Your task to perform on an android device: Do I have any events tomorrow? Image 0: 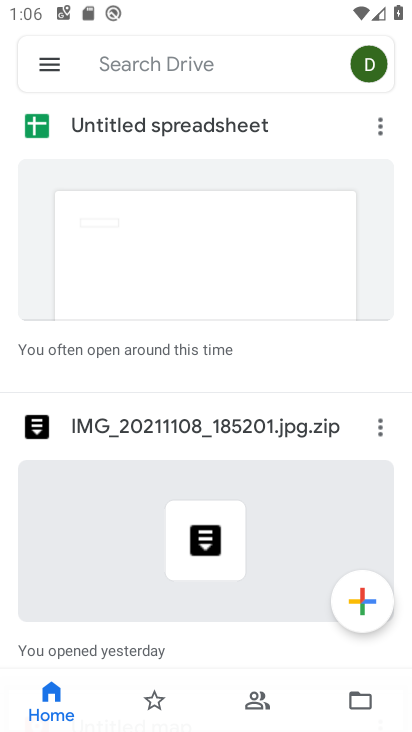
Step 0: press home button
Your task to perform on an android device: Do I have any events tomorrow? Image 1: 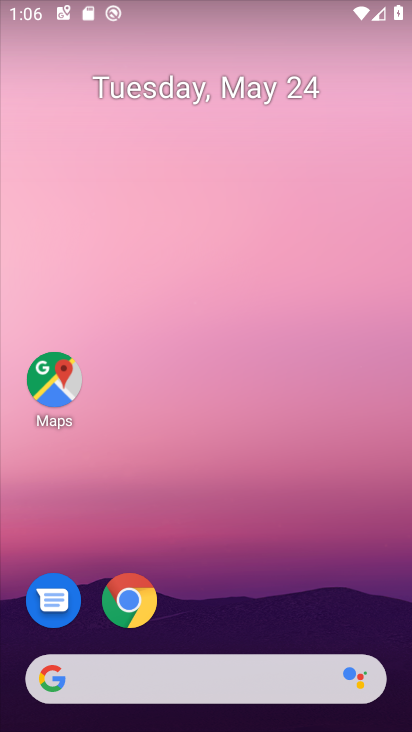
Step 1: drag from (191, 612) to (193, 241)
Your task to perform on an android device: Do I have any events tomorrow? Image 2: 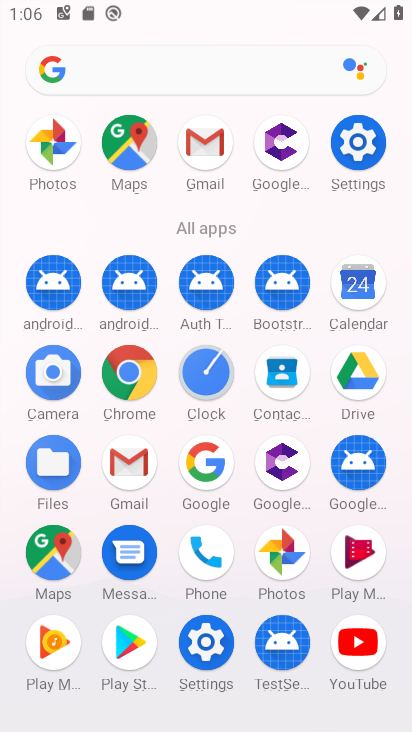
Step 2: click (354, 279)
Your task to perform on an android device: Do I have any events tomorrow? Image 3: 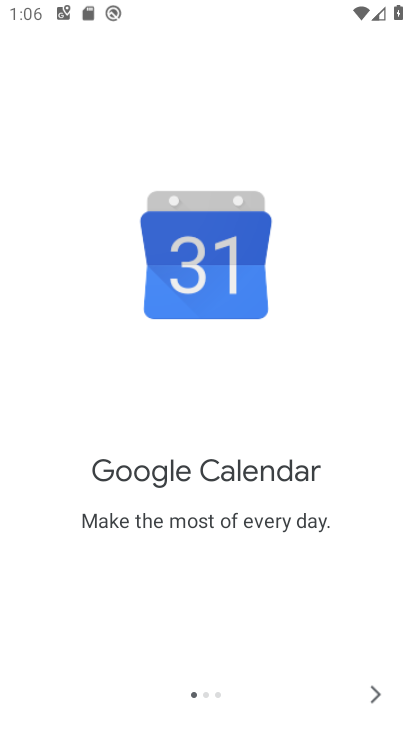
Step 3: click (372, 708)
Your task to perform on an android device: Do I have any events tomorrow? Image 4: 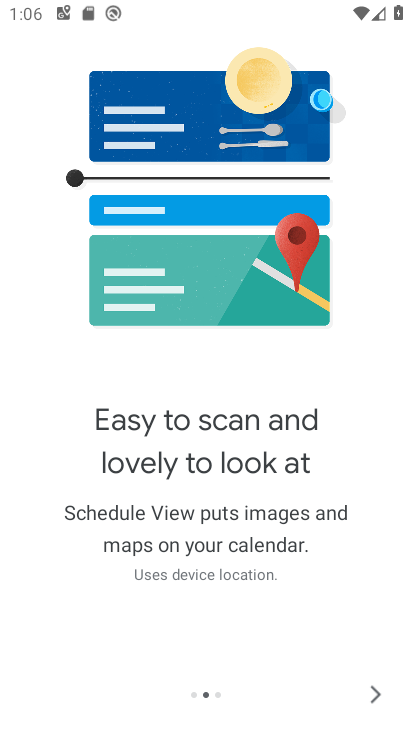
Step 4: click (372, 708)
Your task to perform on an android device: Do I have any events tomorrow? Image 5: 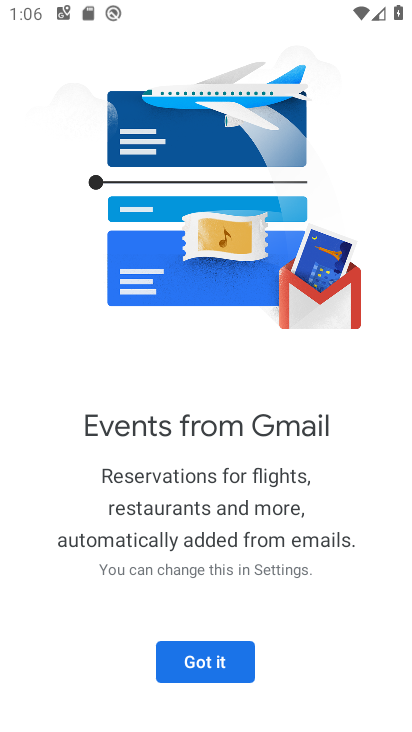
Step 5: click (200, 671)
Your task to perform on an android device: Do I have any events tomorrow? Image 6: 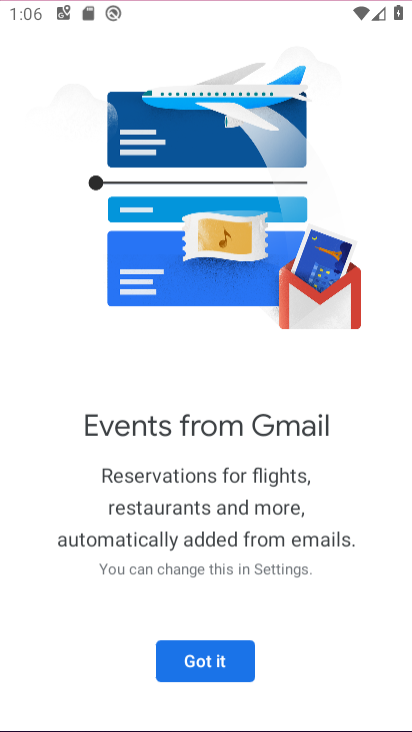
Step 6: click (200, 671)
Your task to perform on an android device: Do I have any events tomorrow? Image 7: 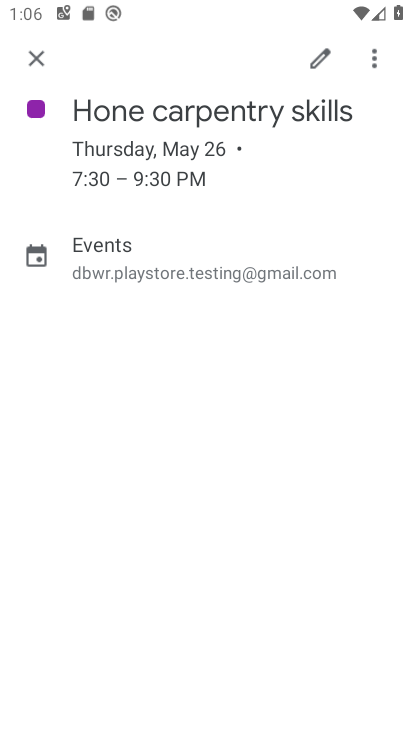
Step 7: click (40, 54)
Your task to perform on an android device: Do I have any events tomorrow? Image 8: 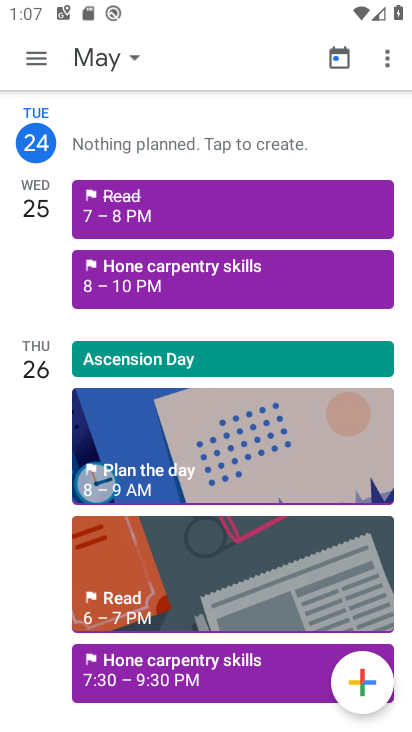
Step 8: click (124, 54)
Your task to perform on an android device: Do I have any events tomorrow? Image 9: 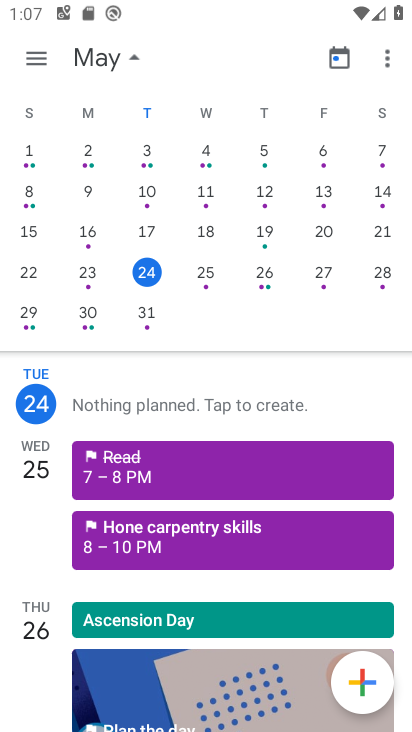
Step 9: click (216, 278)
Your task to perform on an android device: Do I have any events tomorrow? Image 10: 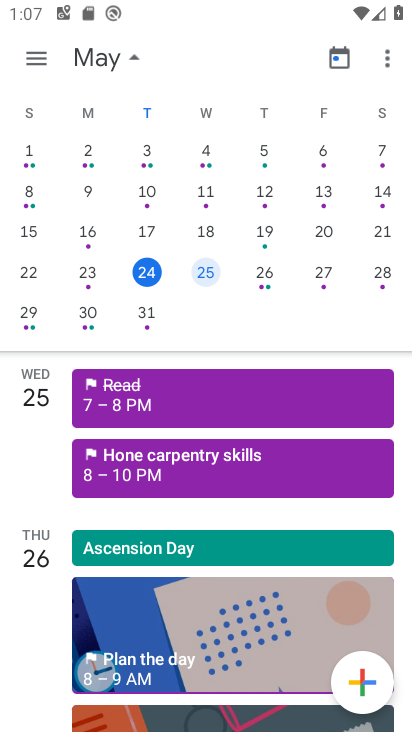
Step 10: task complete